Your task to perform on an android device: Open Chrome and go to settings Image 0: 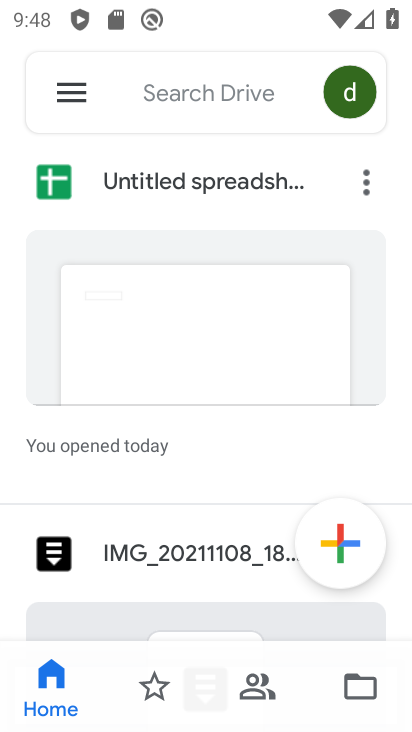
Step 0: press home button
Your task to perform on an android device: Open Chrome and go to settings Image 1: 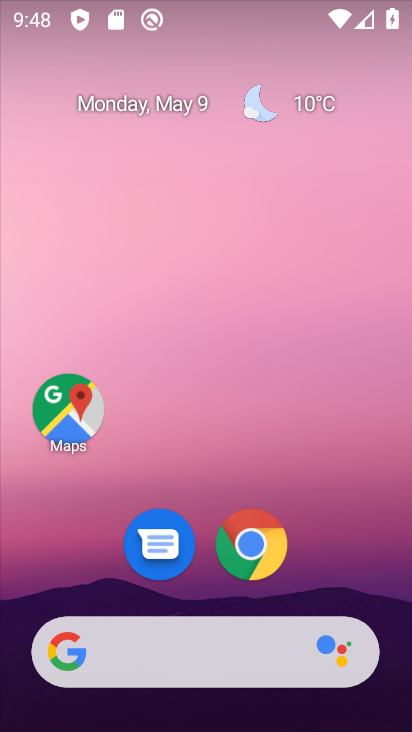
Step 1: click (242, 540)
Your task to perform on an android device: Open Chrome and go to settings Image 2: 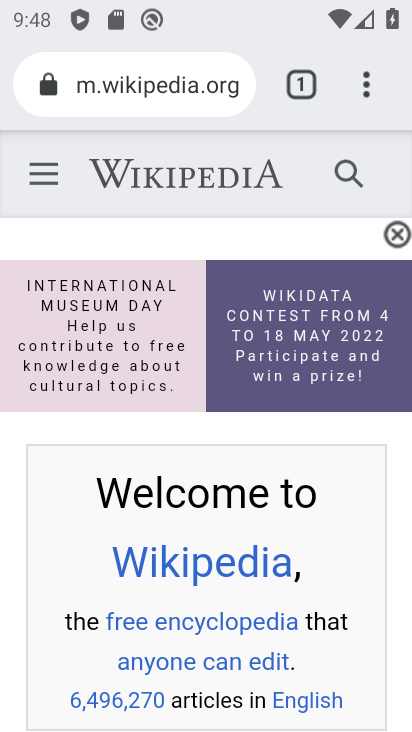
Step 2: click (364, 84)
Your task to perform on an android device: Open Chrome and go to settings Image 3: 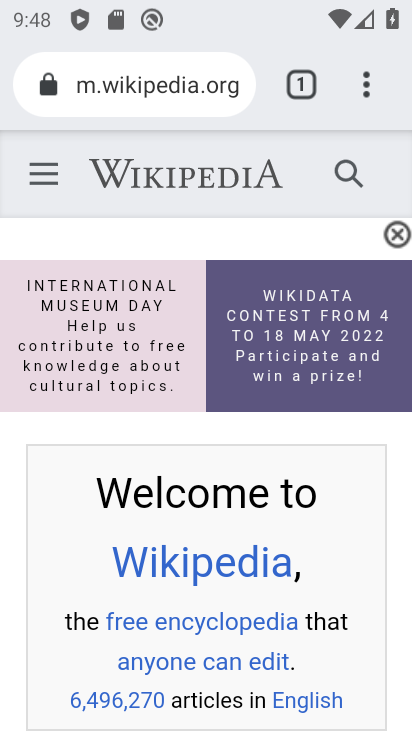
Step 3: click (364, 84)
Your task to perform on an android device: Open Chrome and go to settings Image 4: 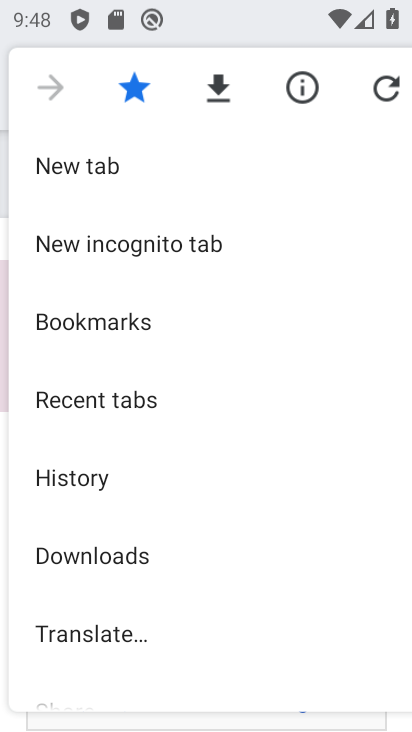
Step 4: drag from (234, 637) to (212, 220)
Your task to perform on an android device: Open Chrome and go to settings Image 5: 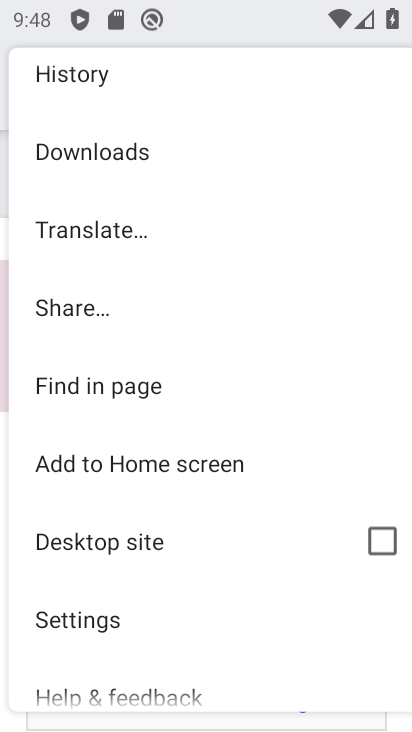
Step 5: click (82, 621)
Your task to perform on an android device: Open Chrome and go to settings Image 6: 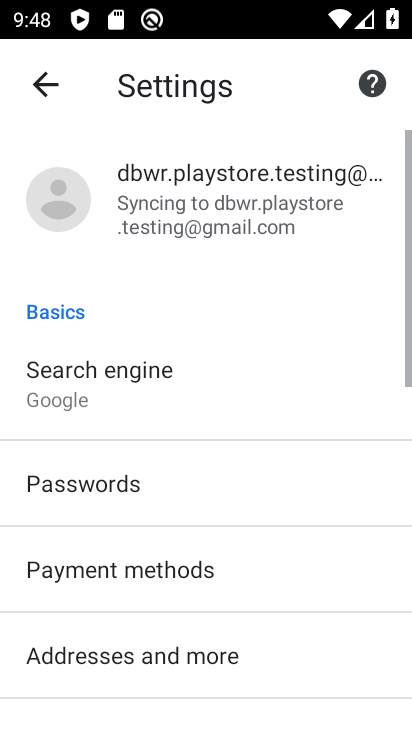
Step 6: task complete